Your task to perform on an android device: Open network settings Image 0: 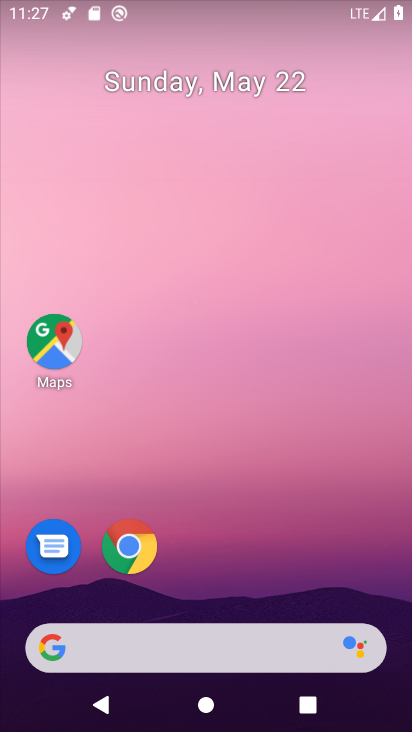
Step 0: drag from (253, 606) to (247, 188)
Your task to perform on an android device: Open network settings Image 1: 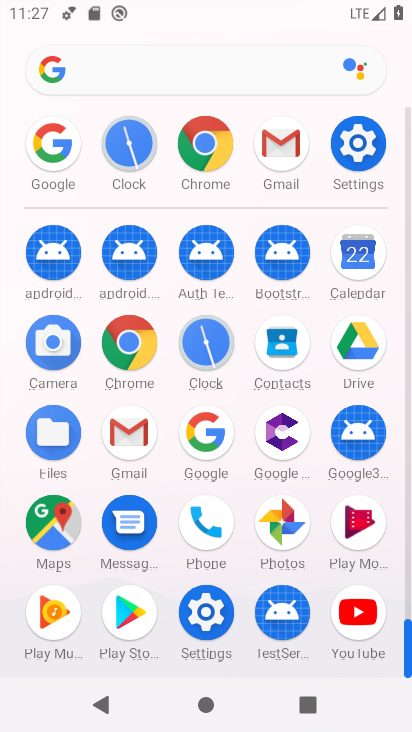
Step 1: click (364, 163)
Your task to perform on an android device: Open network settings Image 2: 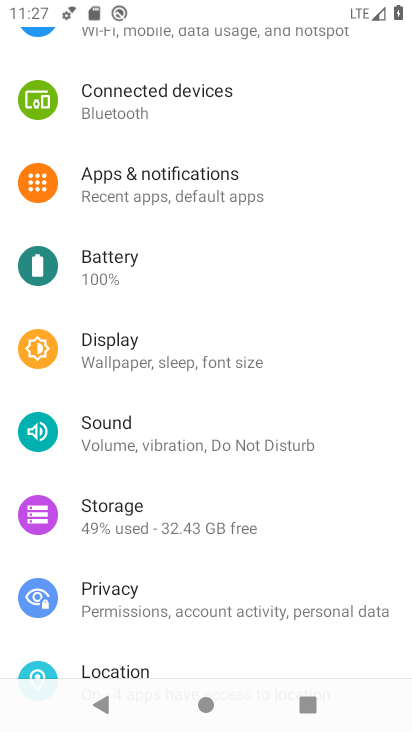
Step 2: drag from (268, 162) to (246, 332)
Your task to perform on an android device: Open network settings Image 3: 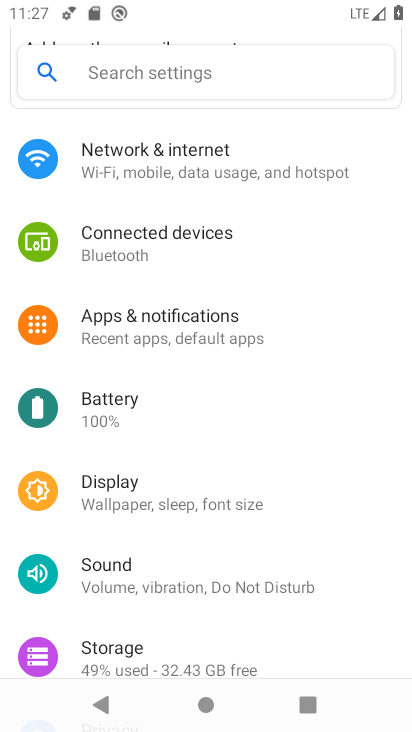
Step 3: click (235, 168)
Your task to perform on an android device: Open network settings Image 4: 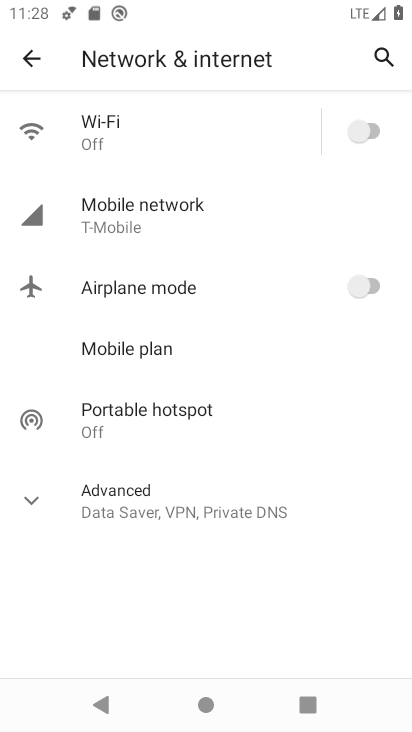
Step 4: click (190, 206)
Your task to perform on an android device: Open network settings Image 5: 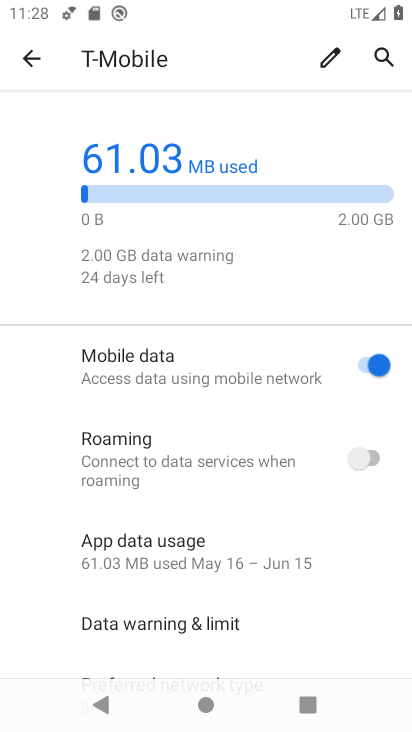
Step 5: task complete